Your task to perform on an android device: change notification settings in the gmail app Image 0: 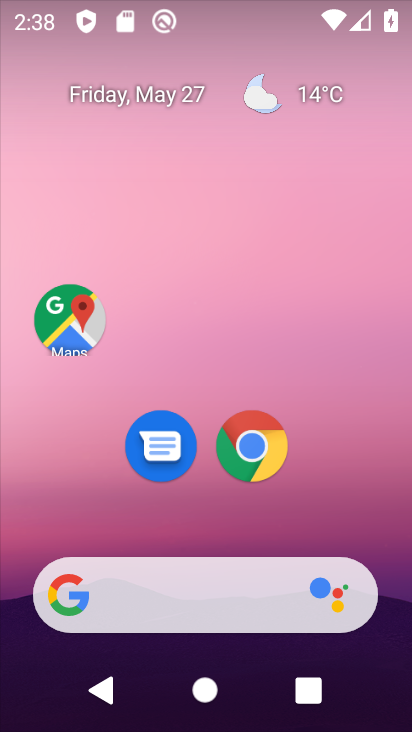
Step 0: press home button
Your task to perform on an android device: change notification settings in the gmail app Image 1: 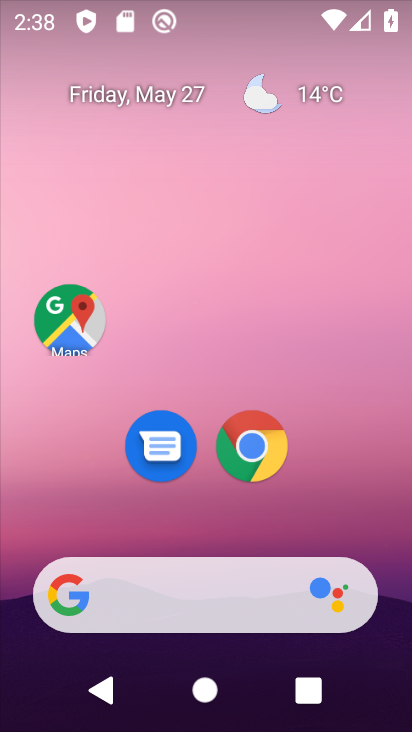
Step 1: drag from (217, 606) to (370, 145)
Your task to perform on an android device: change notification settings in the gmail app Image 2: 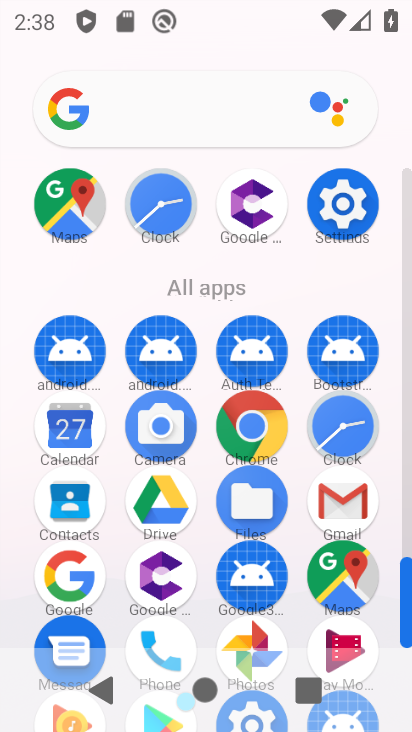
Step 2: click (343, 511)
Your task to perform on an android device: change notification settings in the gmail app Image 3: 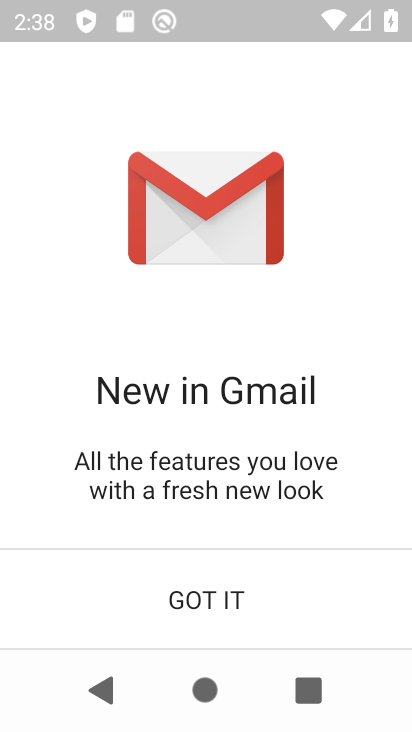
Step 3: click (226, 582)
Your task to perform on an android device: change notification settings in the gmail app Image 4: 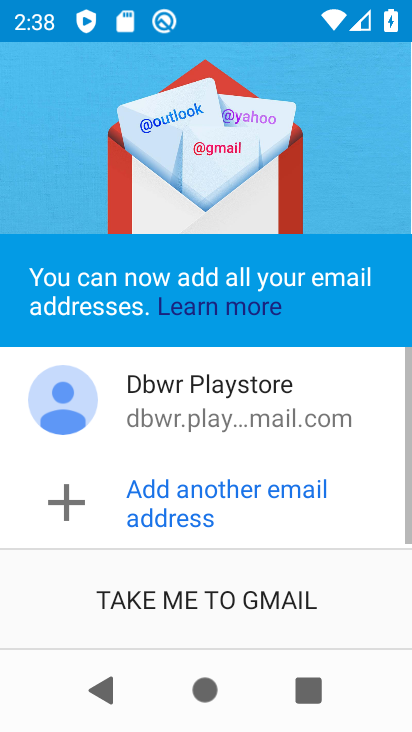
Step 4: click (210, 602)
Your task to perform on an android device: change notification settings in the gmail app Image 5: 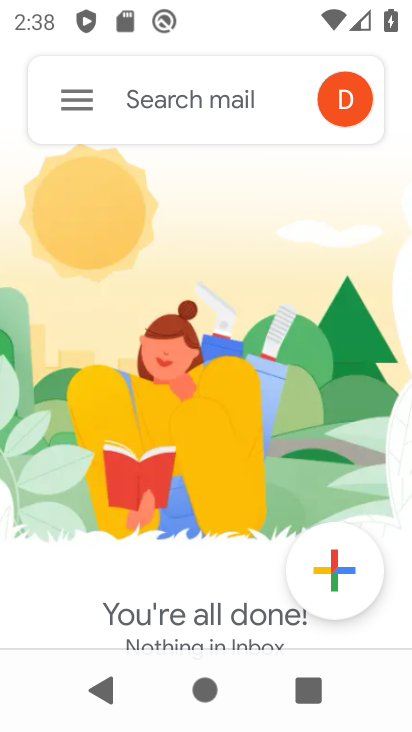
Step 5: click (70, 110)
Your task to perform on an android device: change notification settings in the gmail app Image 6: 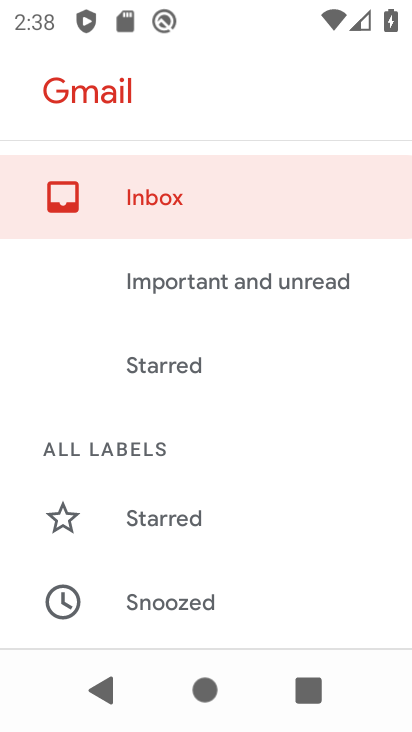
Step 6: drag from (218, 575) to (411, 57)
Your task to perform on an android device: change notification settings in the gmail app Image 7: 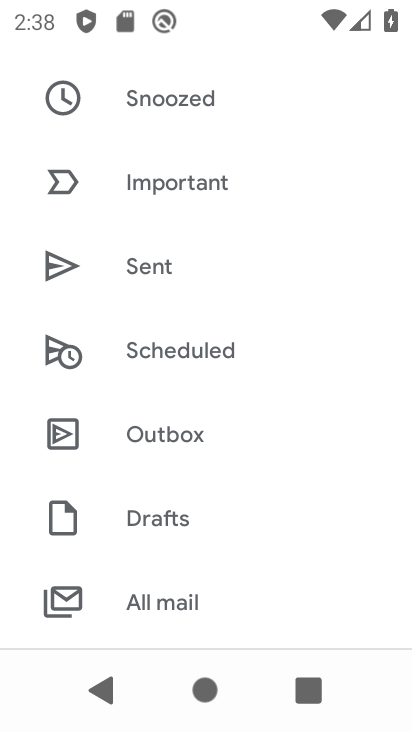
Step 7: drag from (233, 551) to (358, 97)
Your task to perform on an android device: change notification settings in the gmail app Image 8: 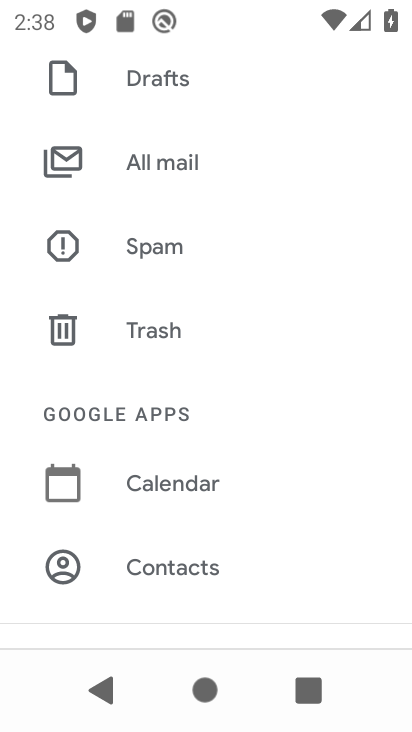
Step 8: drag from (282, 564) to (379, 142)
Your task to perform on an android device: change notification settings in the gmail app Image 9: 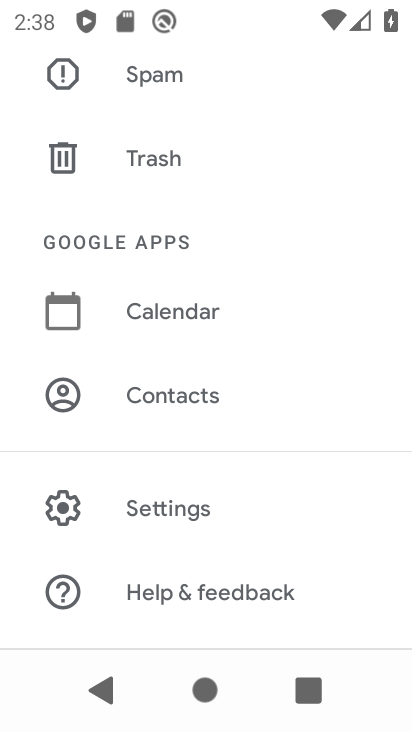
Step 9: click (184, 514)
Your task to perform on an android device: change notification settings in the gmail app Image 10: 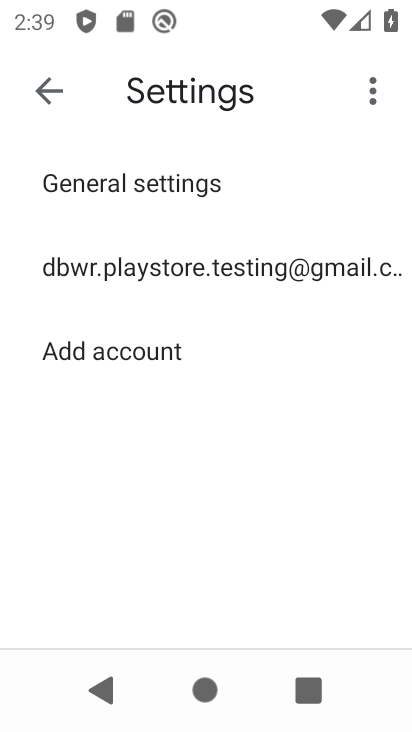
Step 10: click (232, 268)
Your task to perform on an android device: change notification settings in the gmail app Image 11: 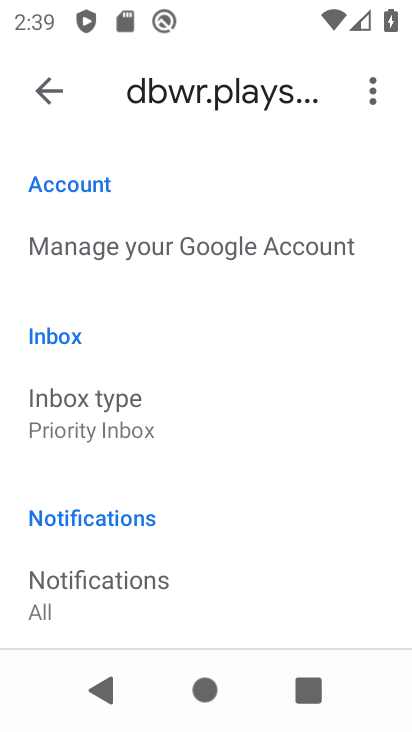
Step 11: drag from (217, 462) to (293, 216)
Your task to perform on an android device: change notification settings in the gmail app Image 12: 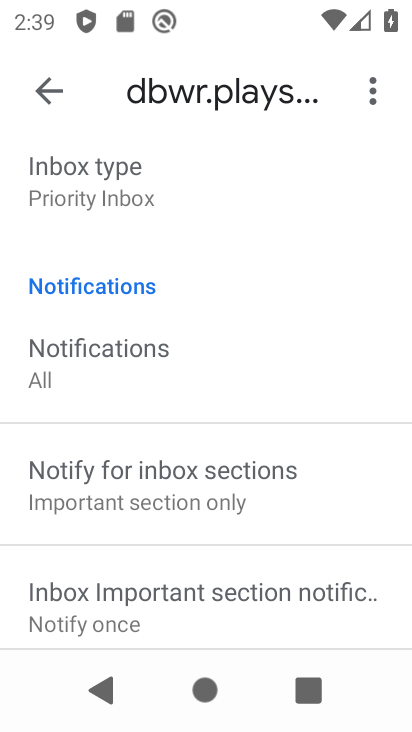
Step 12: click (121, 352)
Your task to perform on an android device: change notification settings in the gmail app Image 13: 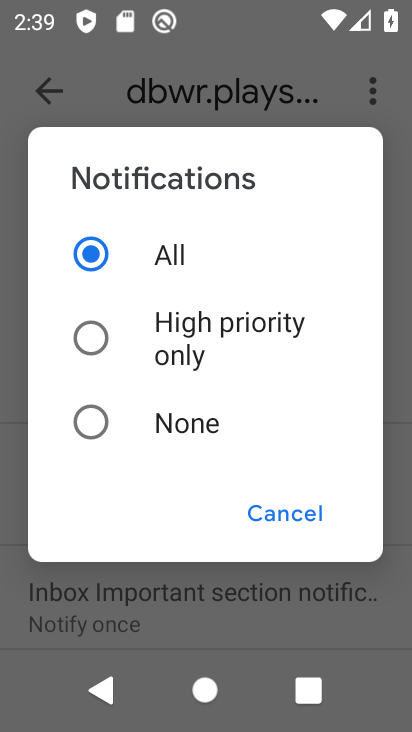
Step 13: click (92, 426)
Your task to perform on an android device: change notification settings in the gmail app Image 14: 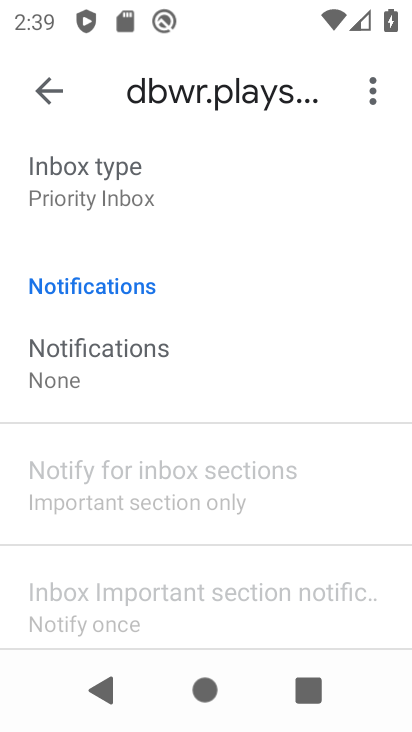
Step 14: task complete